Your task to perform on an android device: turn on bluetooth scan Image 0: 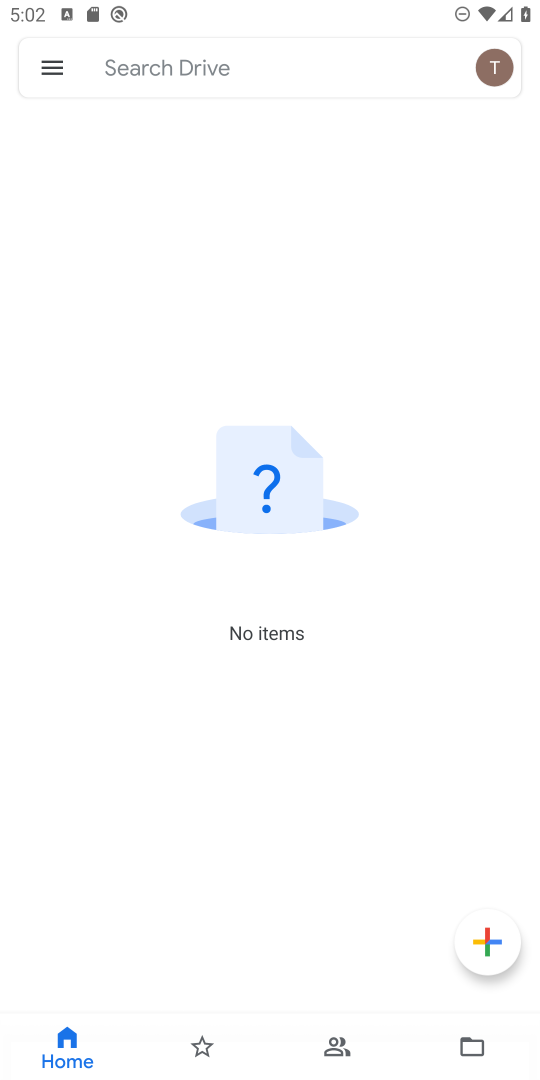
Step 0: press home button
Your task to perform on an android device: turn on bluetooth scan Image 1: 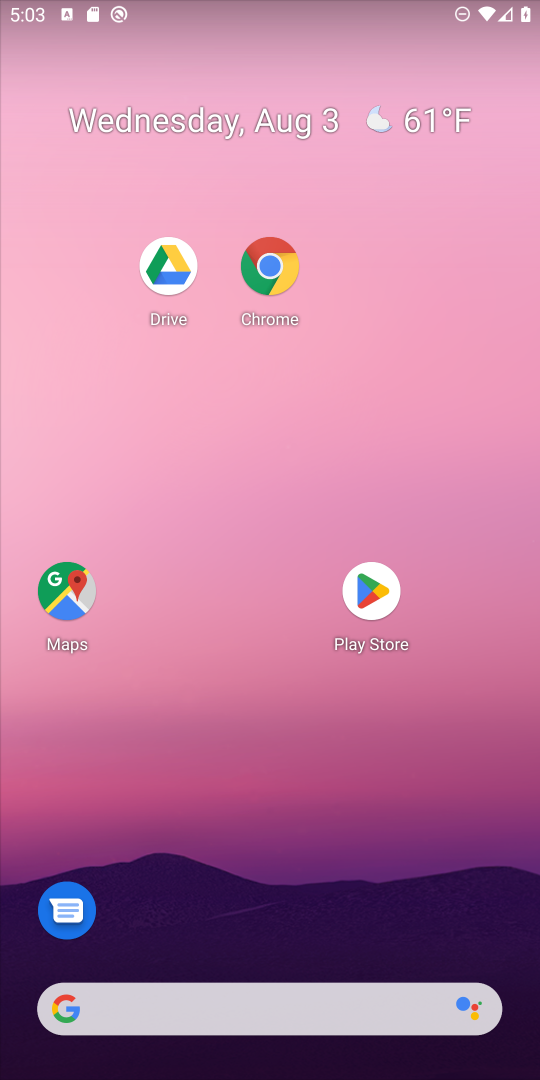
Step 1: drag from (243, 988) to (431, 14)
Your task to perform on an android device: turn on bluetooth scan Image 2: 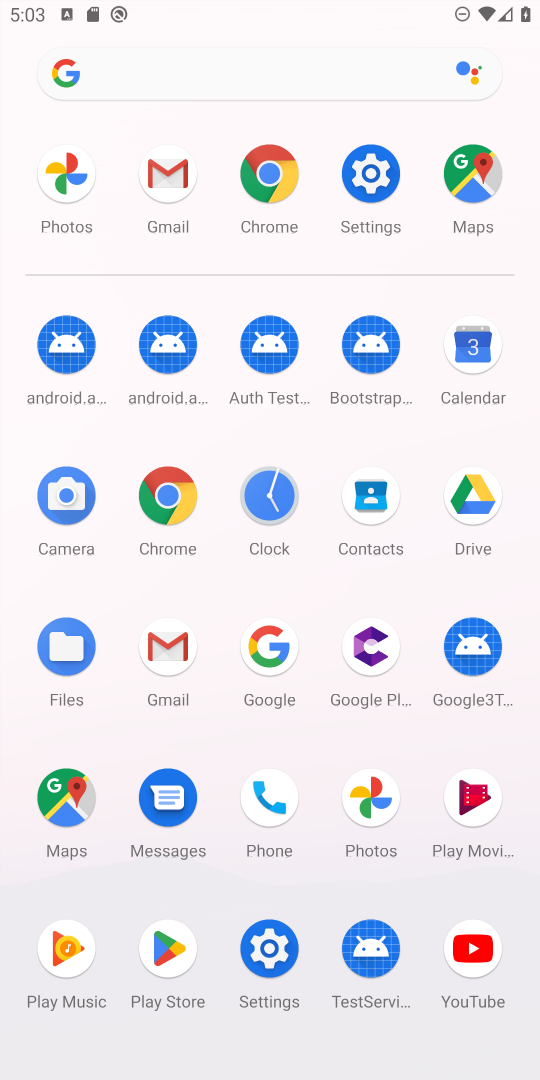
Step 2: click (370, 173)
Your task to perform on an android device: turn on bluetooth scan Image 3: 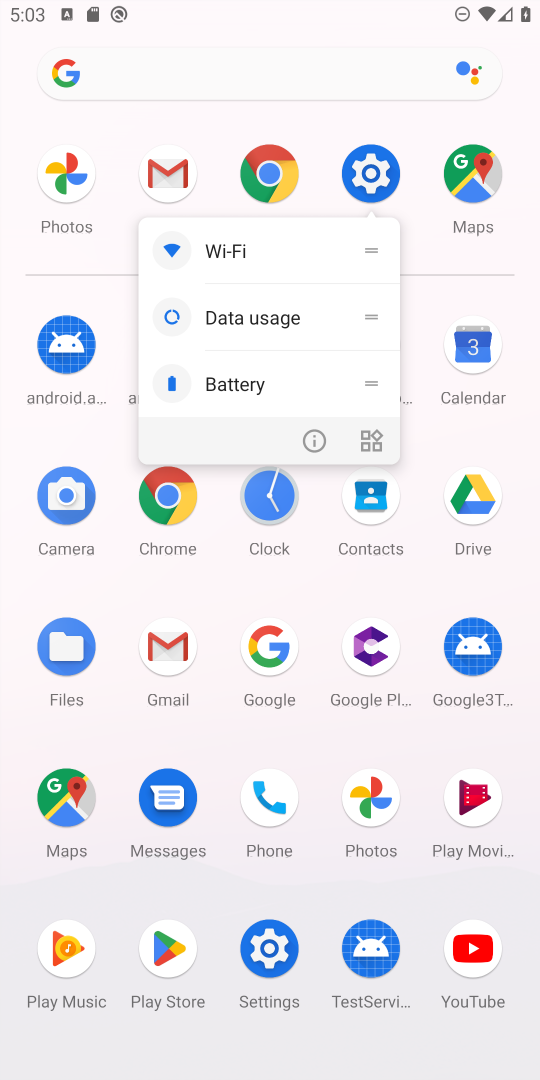
Step 3: click (353, 166)
Your task to perform on an android device: turn on bluetooth scan Image 4: 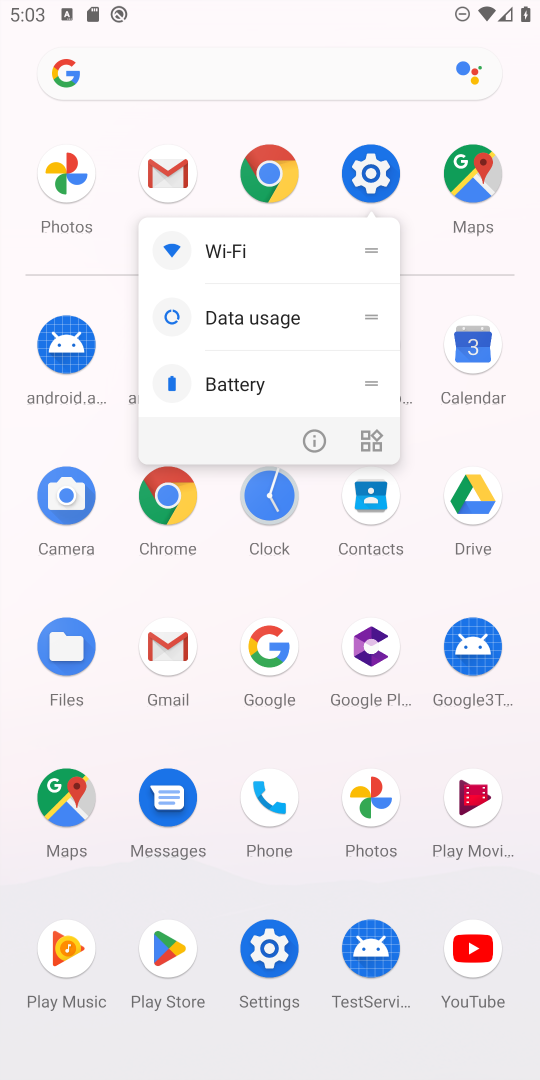
Step 4: click (353, 164)
Your task to perform on an android device: turn on bluetooth scan Image 5: 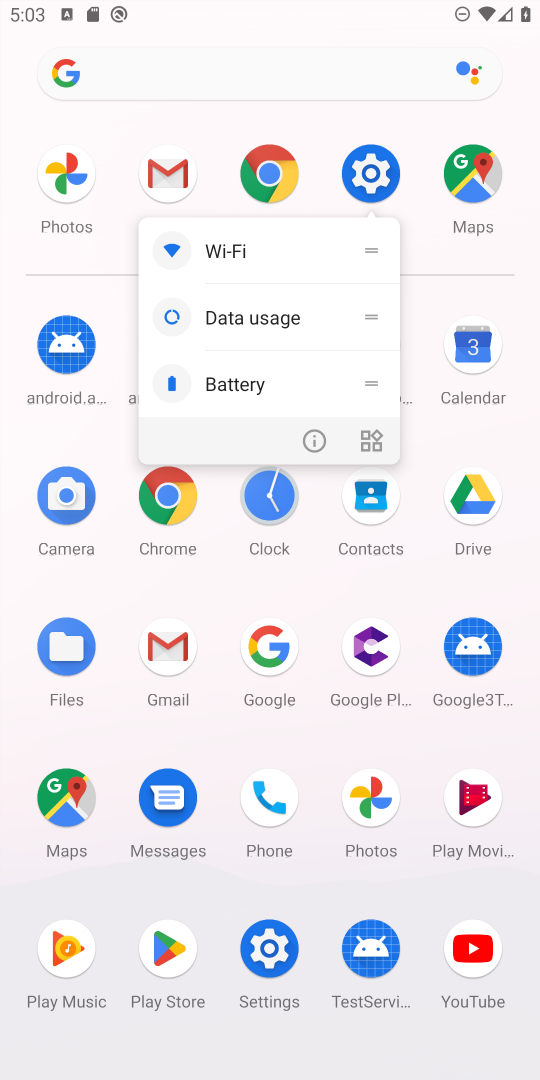
Step 5: click (365, 157)
Your task to perform on an android device: turn on bluetooth scan Image 6: 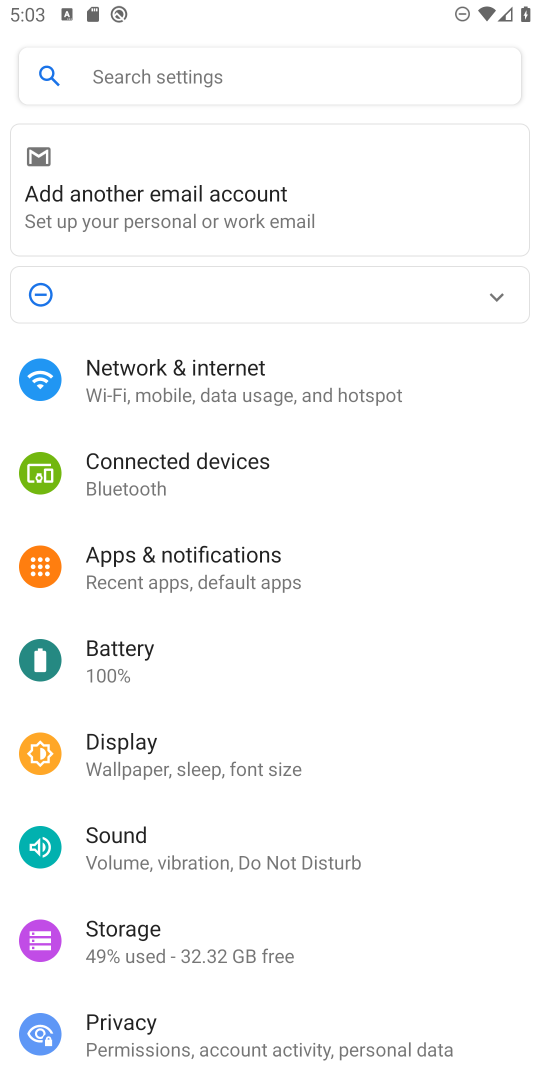
Step 6: drag from (223, 1003) to (450, 97)
Your task to perform on an android device: turn on bluetooth scan Image 7: 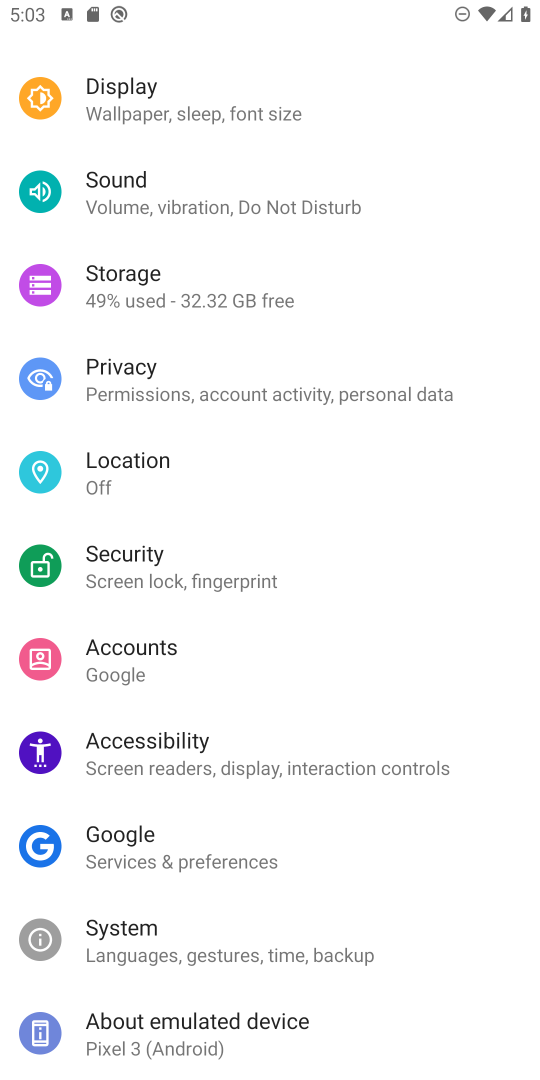
Step 7: click (178, 478)
Your task to perform on an android device: turn on bluetooth scan Image 8: 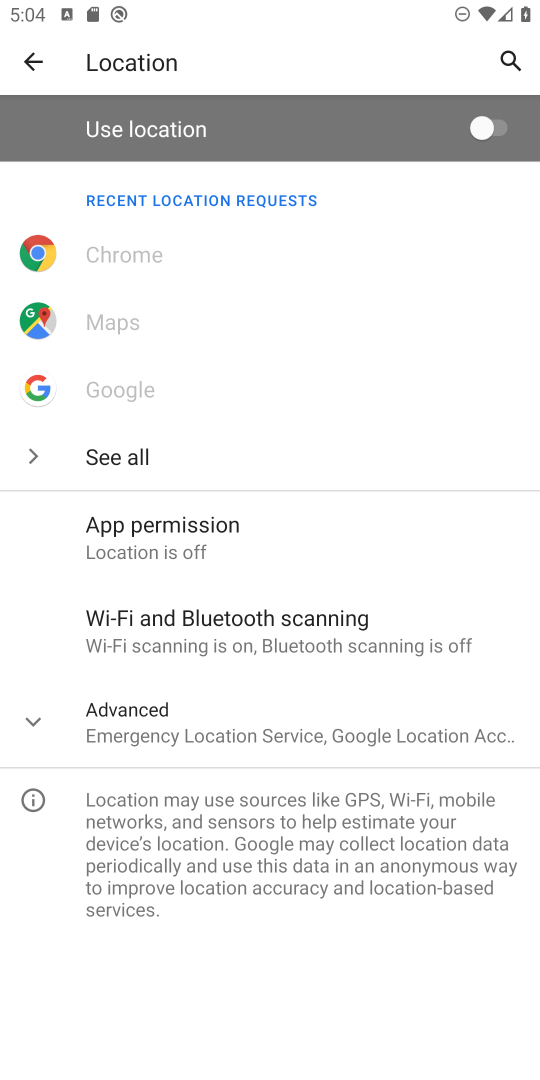
Step 8: click (212, 615)
Your task to perform on an android device: turn on bluetooth scan Image 9: 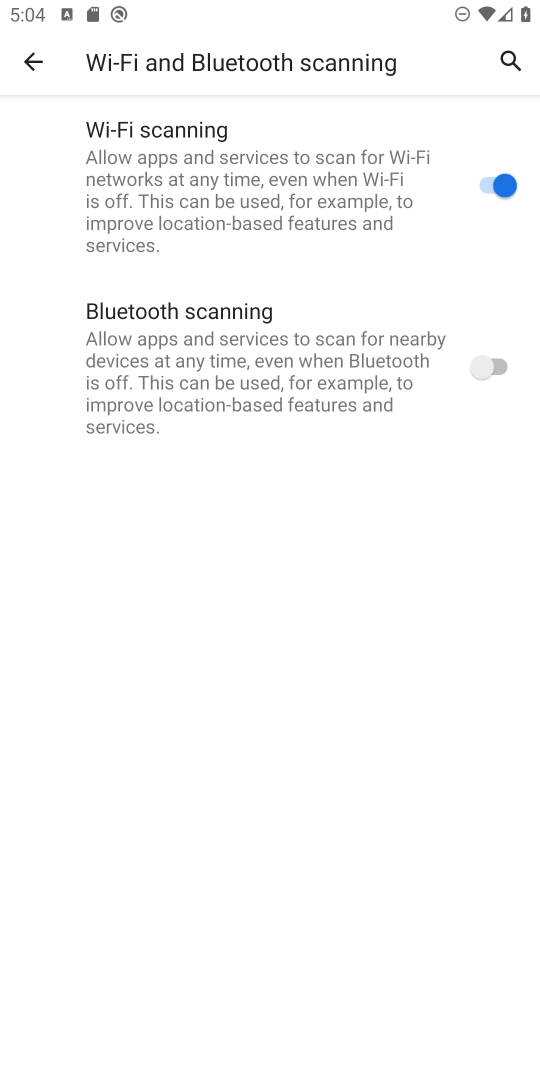
Step 9: click (499, 370)
Your task to perform on an android device: turn on bluetooth scan Image 10: 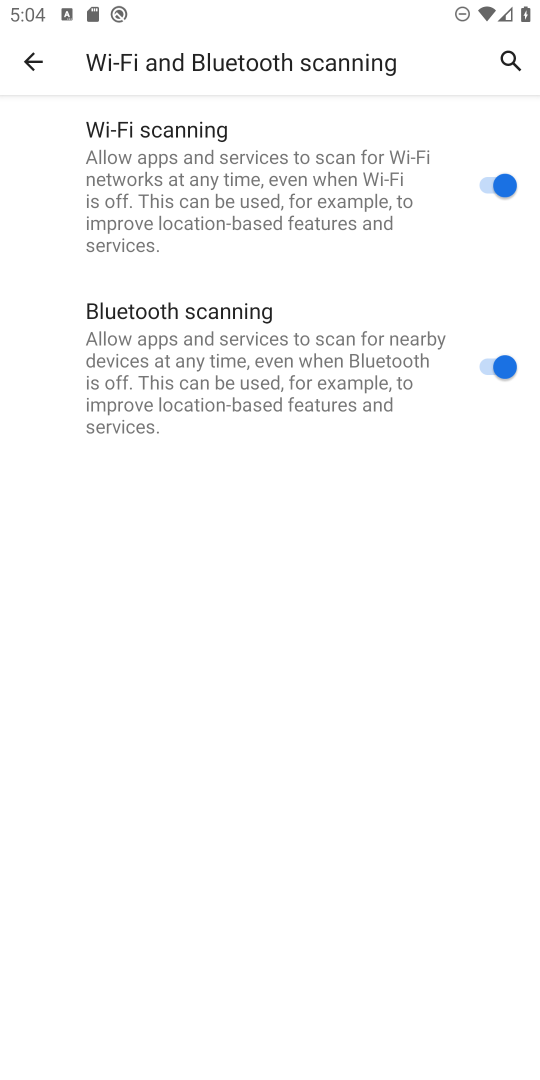
Step 10: task complete